Your task to perform on an android device: Go to display settings Image 0: 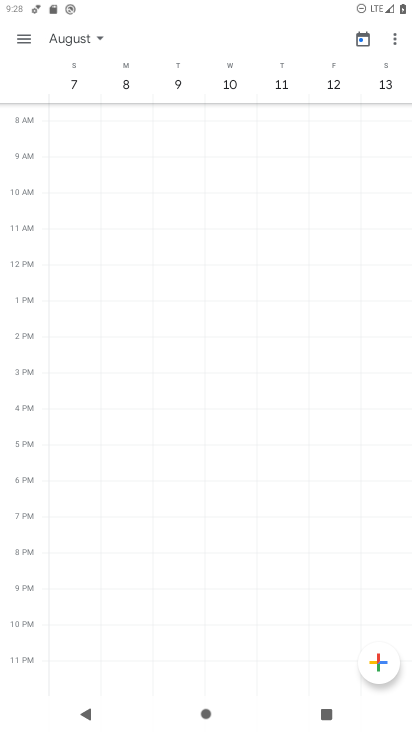
Step 0: press home button
Your task to perform on an android device: Go to display settings Image 1: 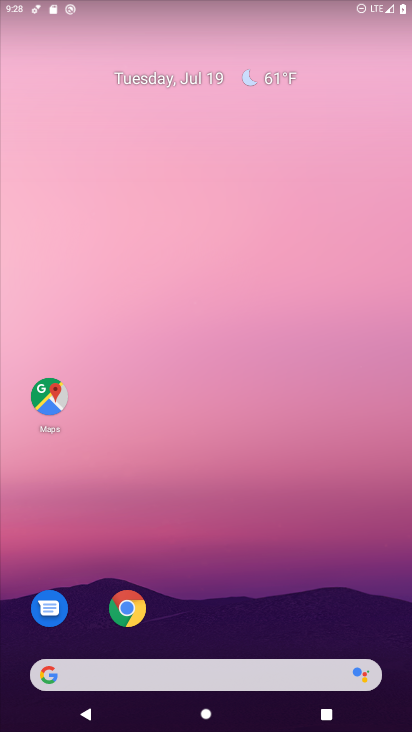
Step 1: drag from (239, 541) to (212, 112)
Your task to perform on an android device: Go to display settings Image 2: 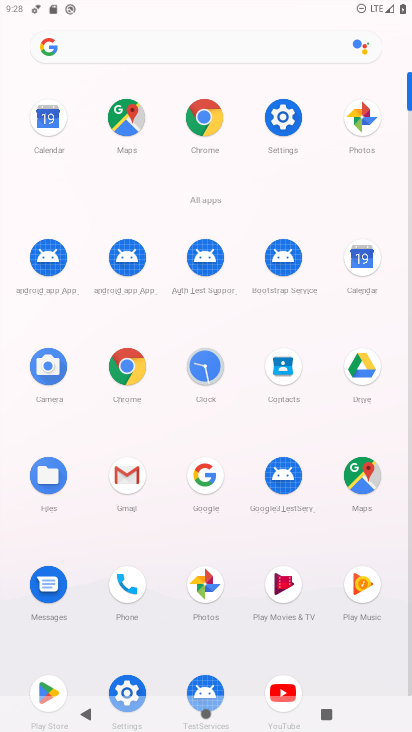
Step 2: click (283, 123)
Your task to perform on an android device: Go to display settings Image 3: 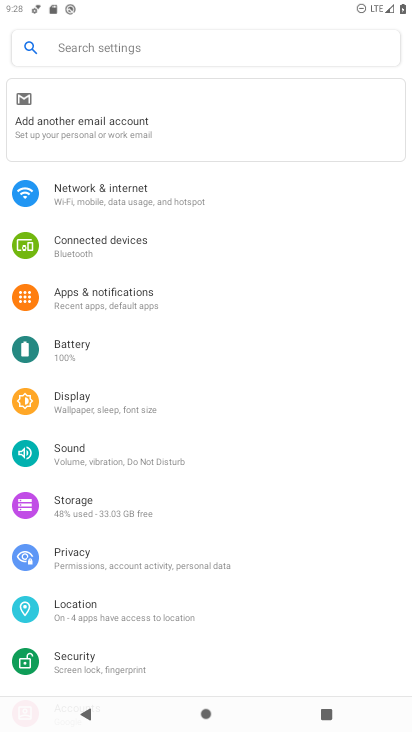
Step 3: click (68, 391)
Your task to perform on an android device: Go to display settings Image 4: 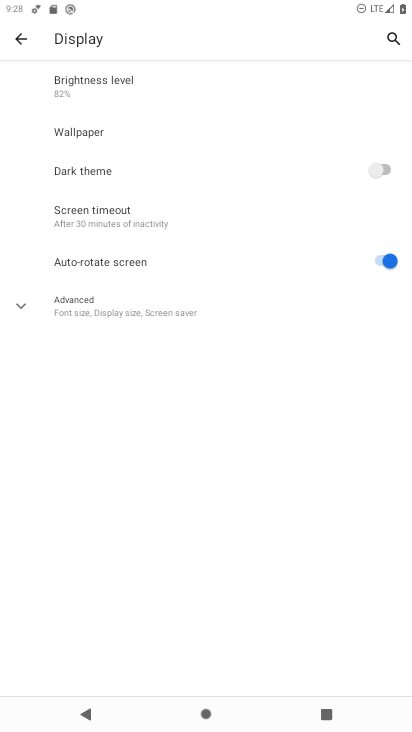
Step 4: task complete